Your task to perform on an android device: Go to location settings Image 0: 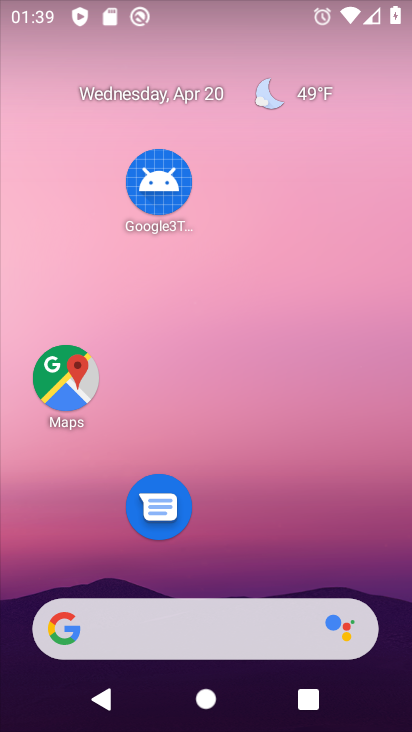
Step 0: drag from (259, 526) to (233, 14)
Your task to perform on an android device: Go to location settings Image 1: 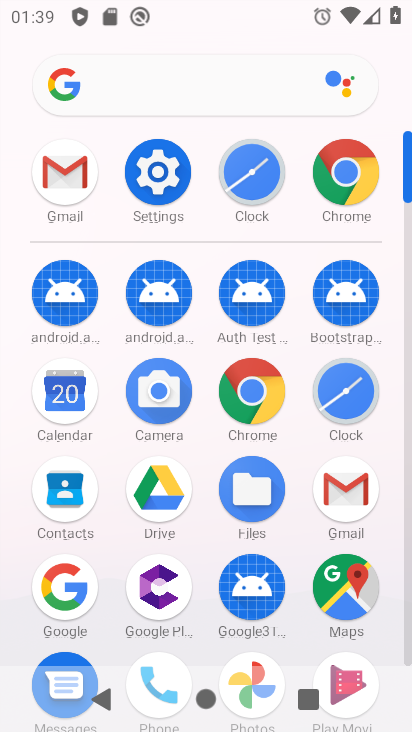
Step 1: click (155, 174)
Your task to perform on an android device: Go to location settings Image 2: 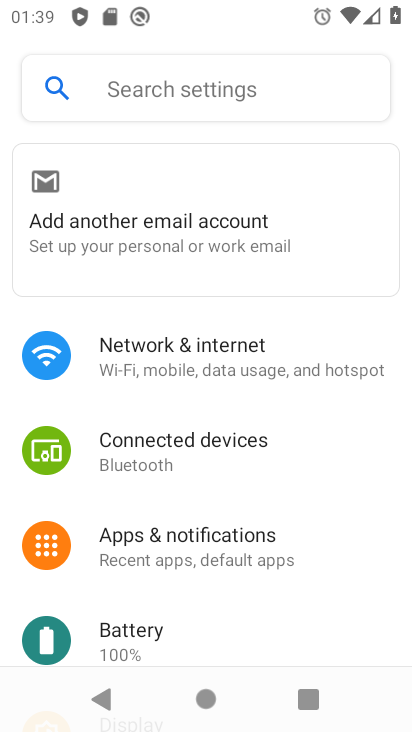
Step 2: drag from (233, 567) to (244, 128)
Your task to perform on an android device: Go to location settings Image 3: 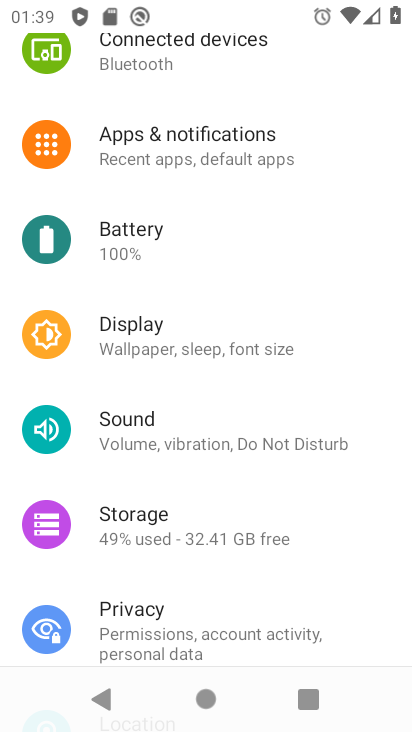
Step 3: drag from (195, 560) to (164, 105)
Your task to perform on an android device: Go to location settings Image 4: 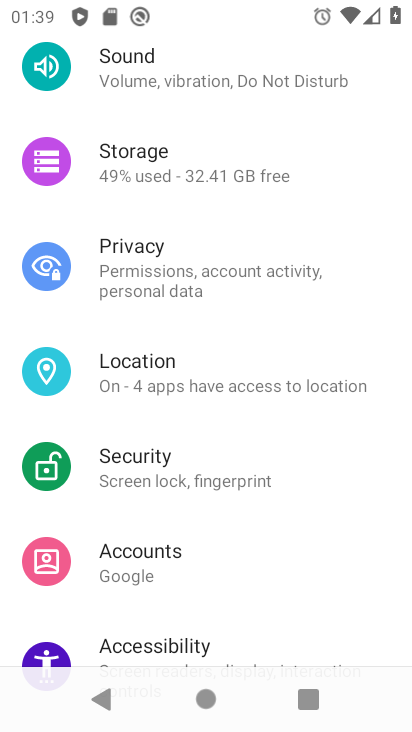
Step 4: click (130, 365)
Your task to perform on an android device: Go to location settings Image 5: 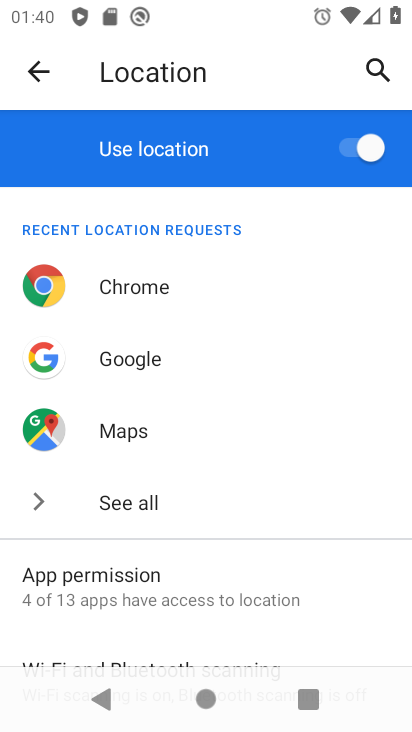
Step 5: task complete